Your task to perform on an android device: Search for electric lawnmowers on Home Depot Image 0: 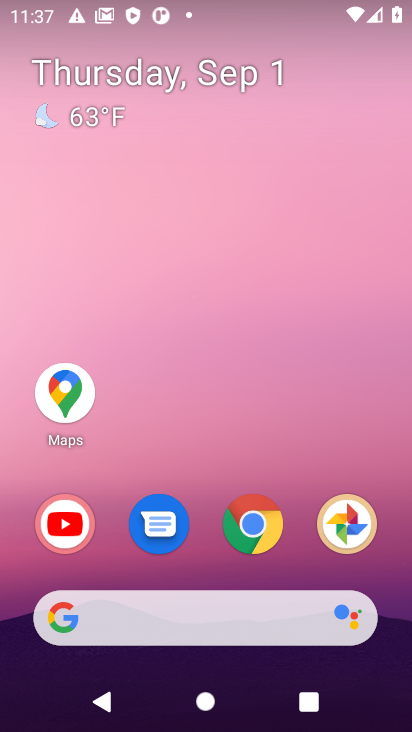
Step 0: click (263, 522)
Your task to perform on an android device: Search for electric lawnmowers on Home Depot Image 1: 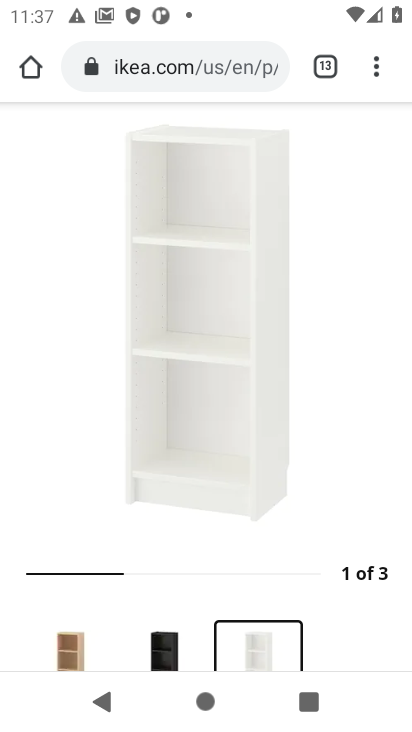
Step 1: click (324, 66)
Your task to perform on an android device: Search for electric lawnmowers on Home Depot Image 2: 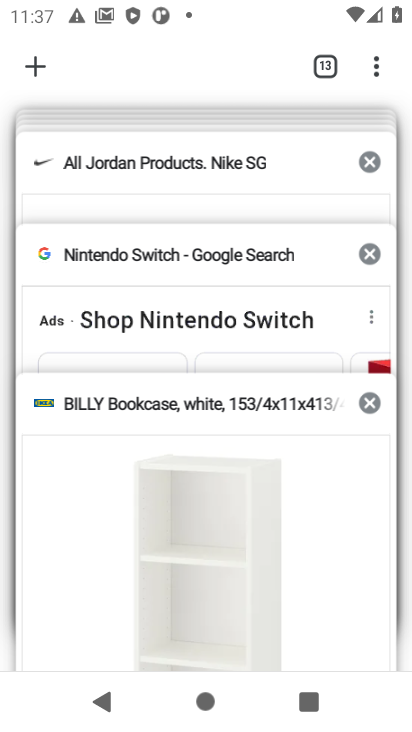
Step 2: click (36, 66)
Your task to perform on an android device: Search for electric lawnmowers on Home Depot Image 3: 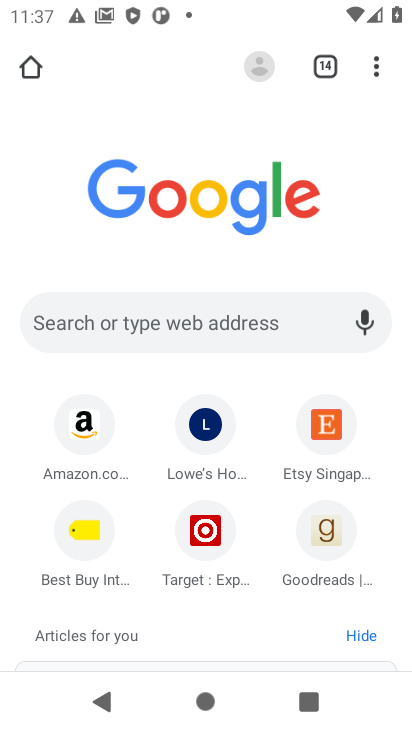
Step 3: click (150, 323)
Your task to perform on an android device: Search for electric lawnmowers on Home Depot Image 4: 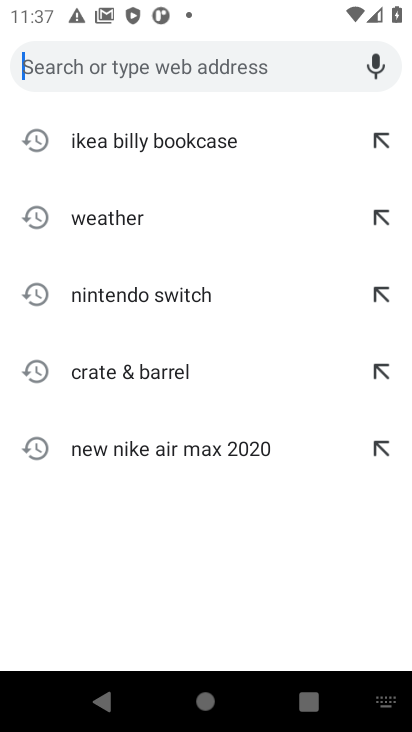
Step 4: type "home depot"
Your task to perform on an android device: Search for electric lawnmowers on Home Depot Image 5: 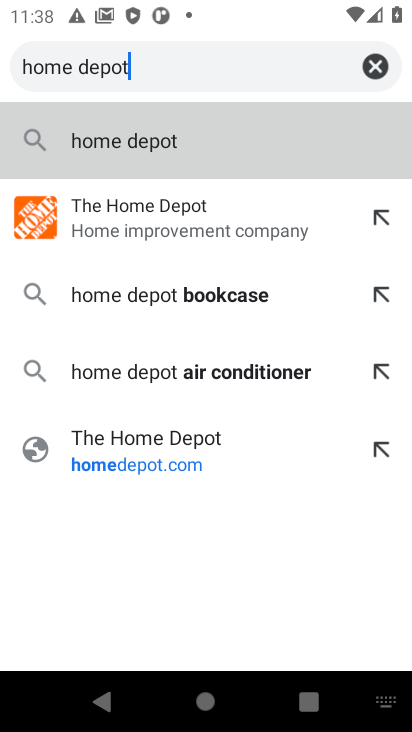
Step 5: click (122, 465)
Your task to perform on an android device: Search for electric lawnmowers on Home Depot Image 6: 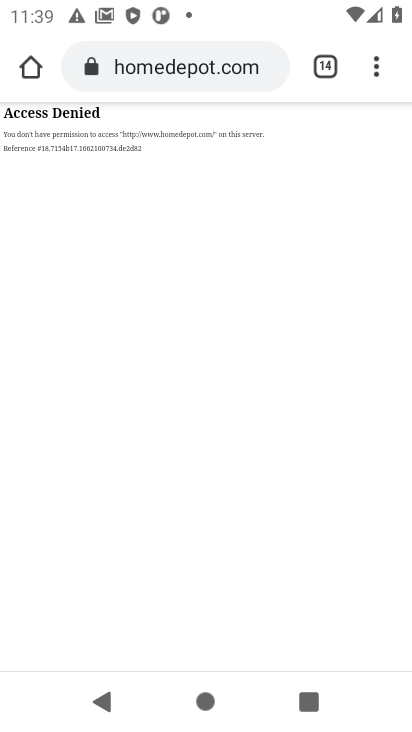
Step 6: task complete